Your task to perform on an android device: Search for sushi restaurants on Maps Image 0: 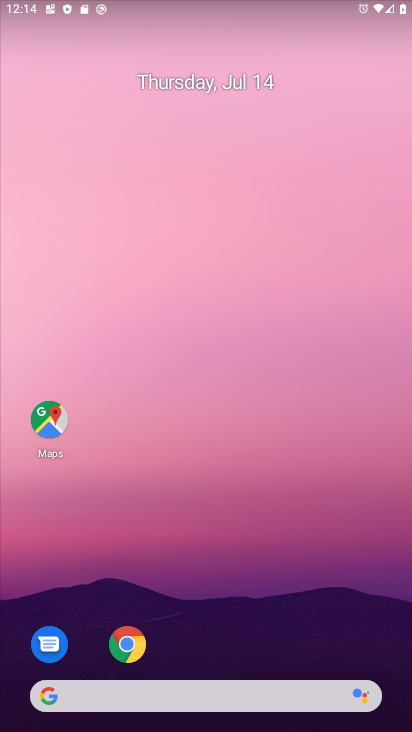
Step 0: click (54, 423)
Your task to perform on an android device: Search for sushi restaurants on Maps Image 1: 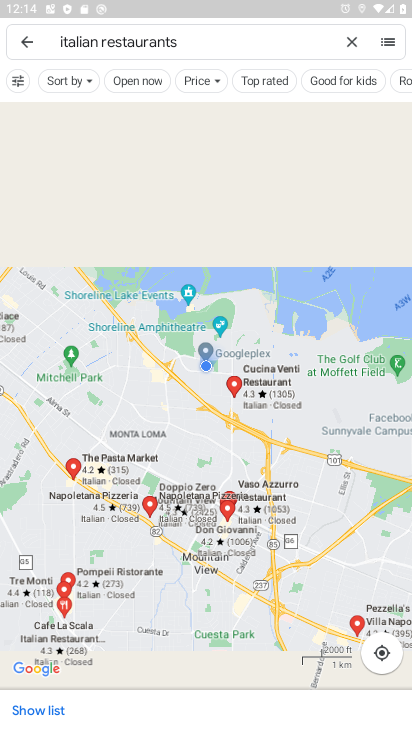
Step 1: click (353, 44)
Your task to perform on an android device: Search for sushi restaurants on Maps Image 2: 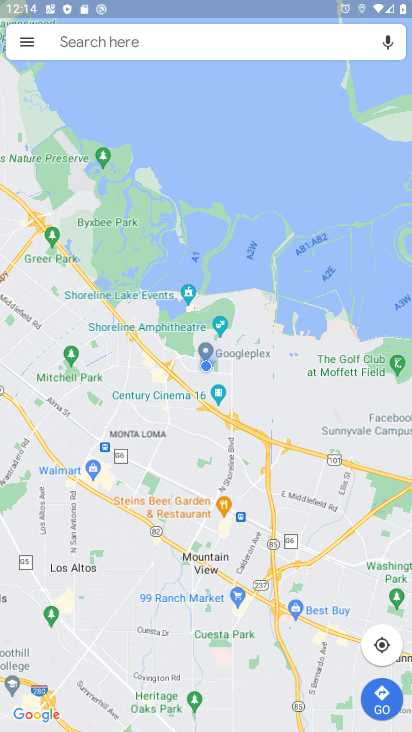
Step 2: click (112, 48)
Your task to perform on an android device: Search for sushi restaurants on Maps Image 3: 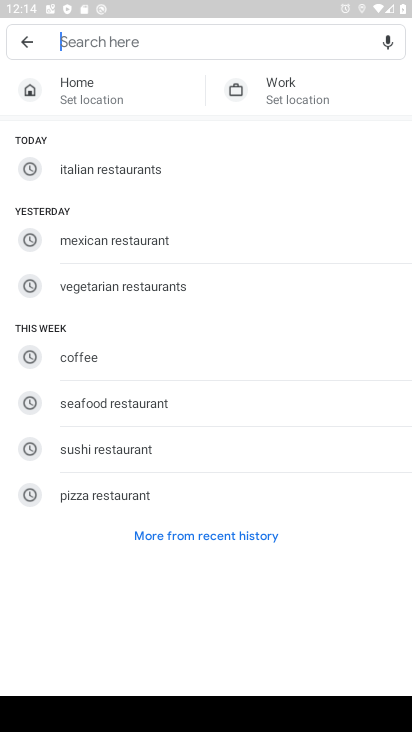
Step 3: click (53, 438)
Your task to perform on an android device: Search for sushi restaurants on Maps Image 4: 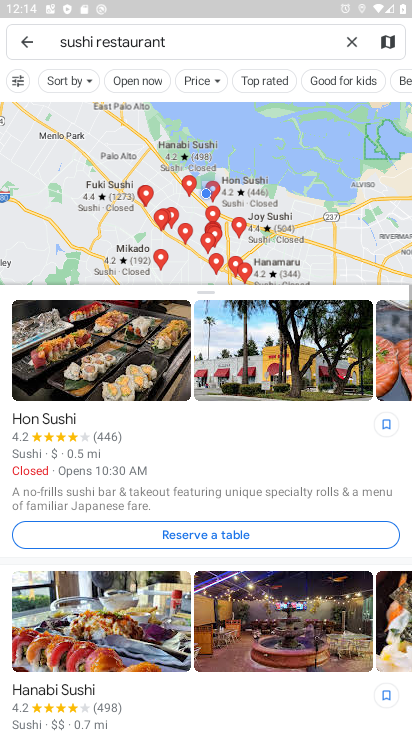
Step 4: task complete